Your task to perform on an android device: choose inbox layout in the gmail app Image 0: 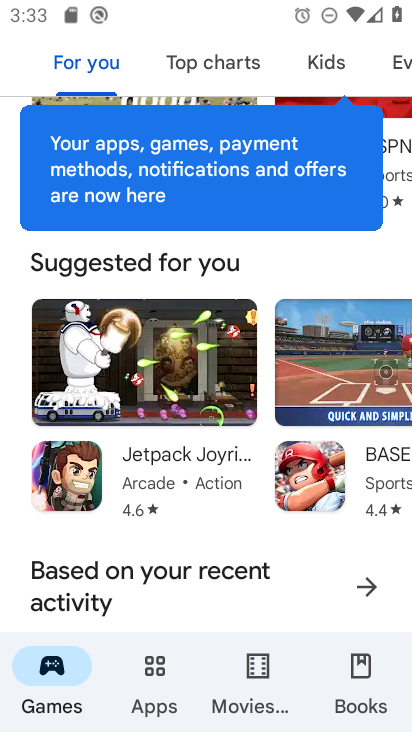
Step 0: press home button
Your task to perform on an android device: choose inbox layout in the gmail app Image 1: 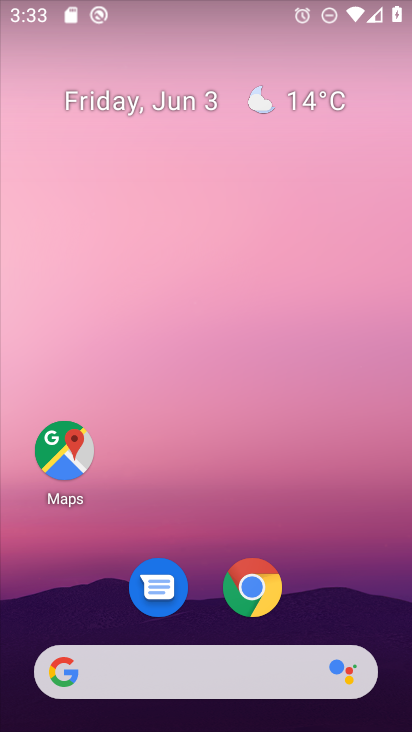
Step 1: drag from (211, 722) to (227, 124)
Your task to perform on an android device: choose inbox layout in the gmail app Image 2: 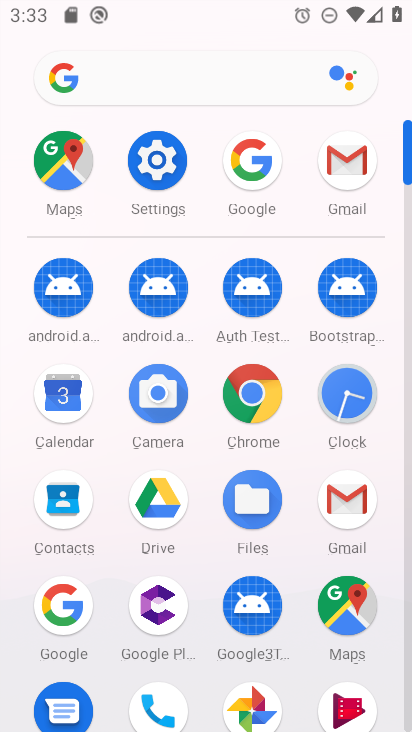
Step 2: click (349, 490)
Your task to perform on an android device: choose inbox layout in the gmail app Image 3: 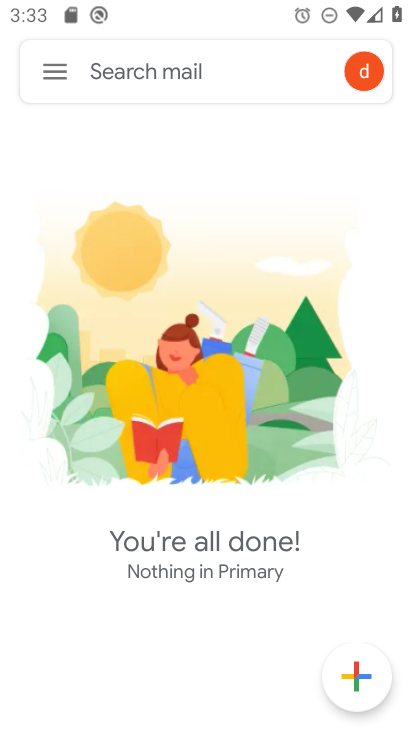
Step 3: click (49, 70)
Your task to perform on an android device: choose inbox layout in the gmail app Image 4: 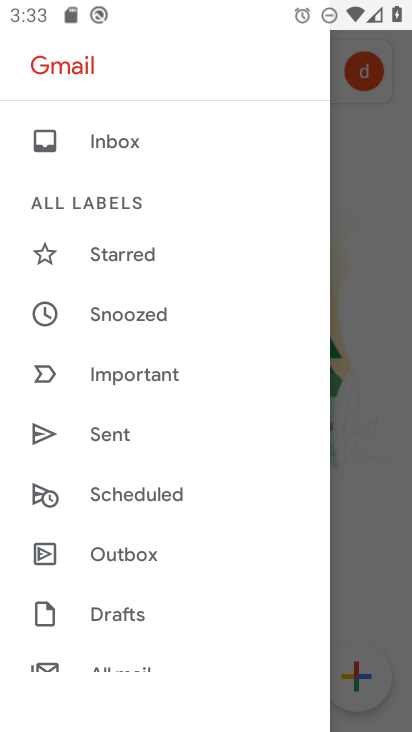
Step 4: drag from (139, 644) to (136, 285)
Your task to perform on an android device: choose inbox layout in the gmail app Image 5: 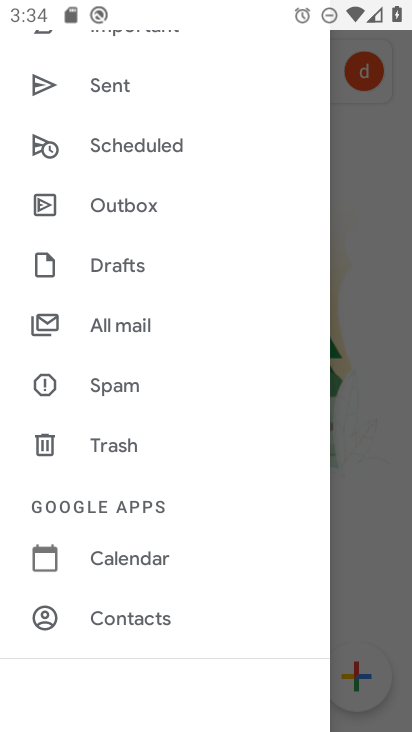
Step 5: drag from (143, 581) to (145, 263)
Your task to perform on an android device: choose inbox layout in the gmail app Image 6: 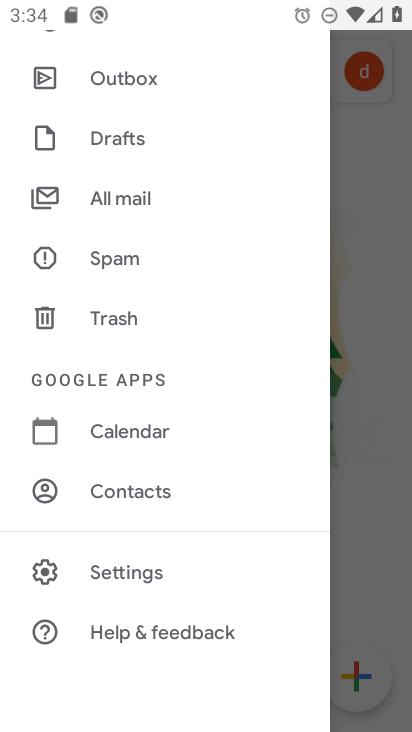
Step 6: click (115, 569)
Your task to perform on an android device: choose inbox layout in the gmail app Image 7: 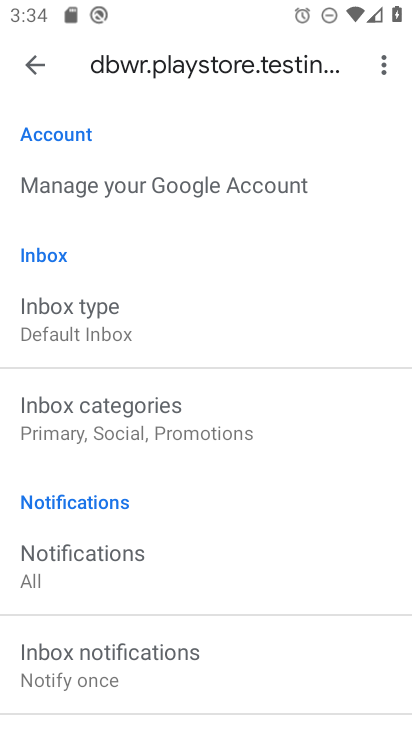
Step 7: click (77, 324)
Your task to perform on an android device: choose inbox layout in the gmail app Image 8: 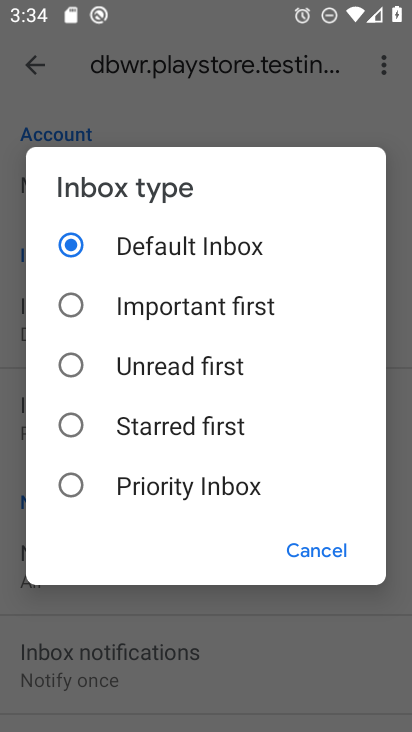
Step 8: click (73, 489)
Your task to perform on an android device: choose inbox layout in the gmail app Image 9: 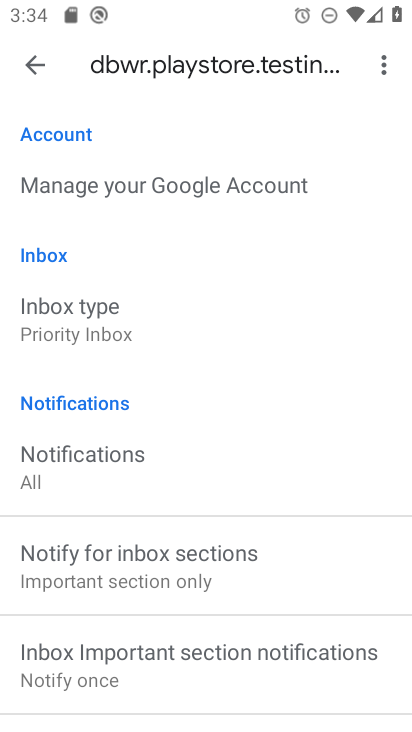
Step 9: task complete